Your task to perform on an android device: turn on location history Image 0: 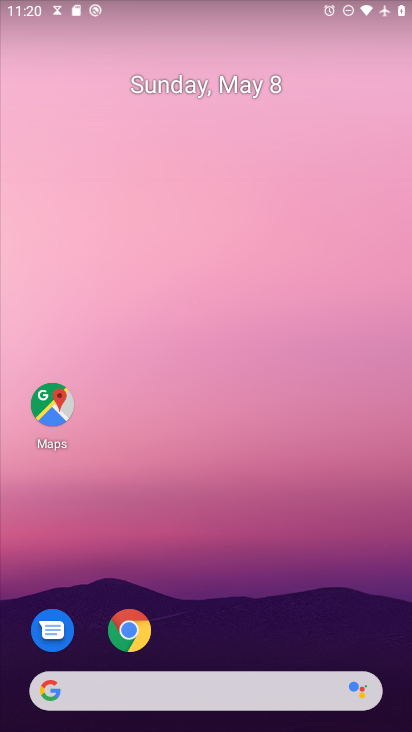
Step 0: drag from (181, 669) to (336, 39)
Your task to perform on an android device: turn on location history Image 1: 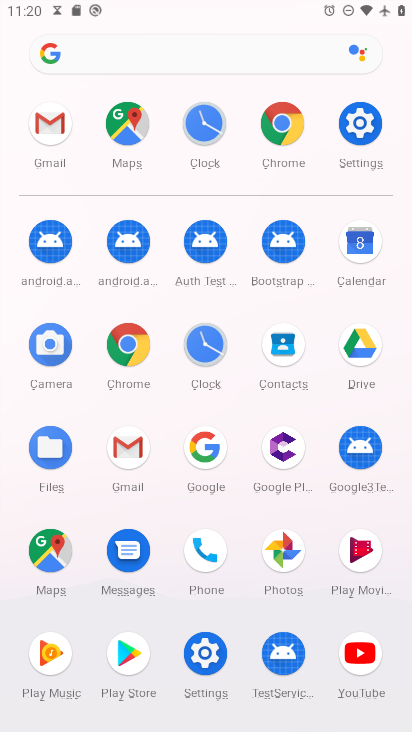
Step 1: click (127, 139)
Your task to perform on an android device: turn on location history Image 2: 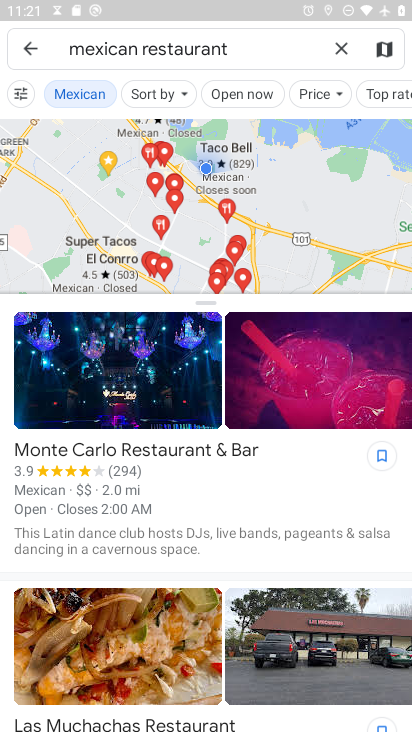
Step 2: click (30, 49)
Your task to perform on an android device: turn on location history Image 3: 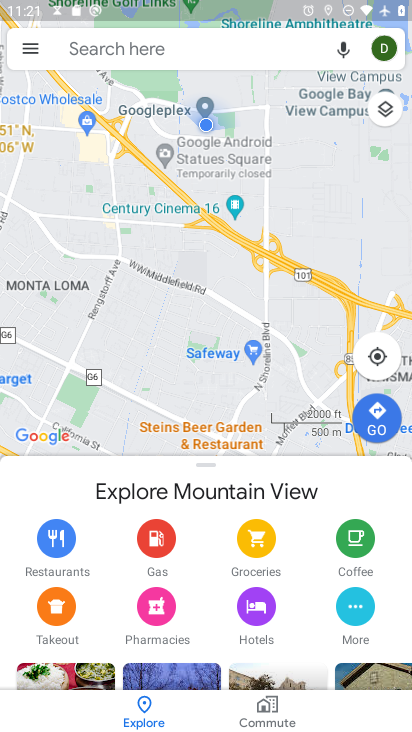
Step 3: click (34, 47)
Your task to perform on an android device: turn on location history Image 4: 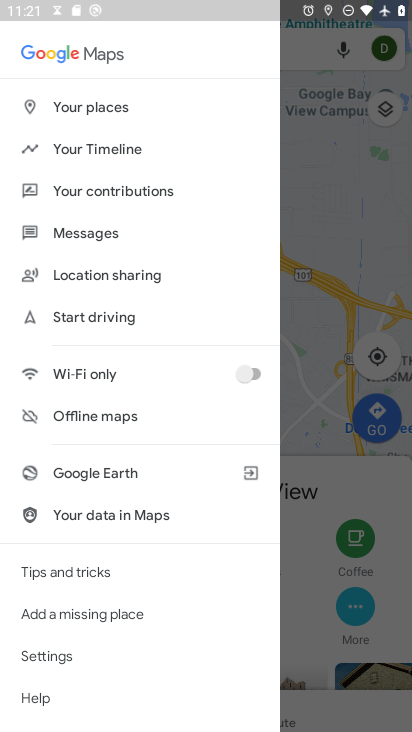
Step 4: click (128, 151)
Your task to perform on an android device: turn on location history Image 5: 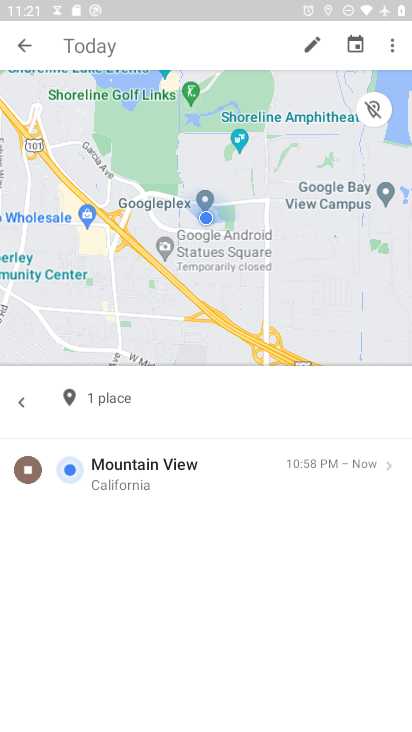
Step 5: click (391, 44)
Your task to perform on an android device: turn on location history Image 6: 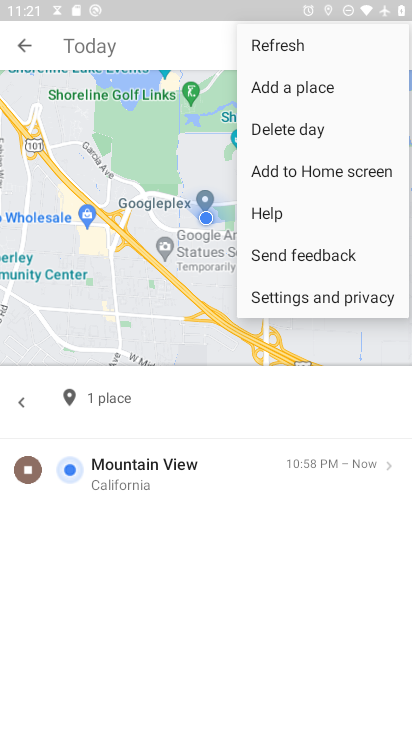
Step 6: click (276, 295)
Your task to perform on an android device: turn on location history Image 7: 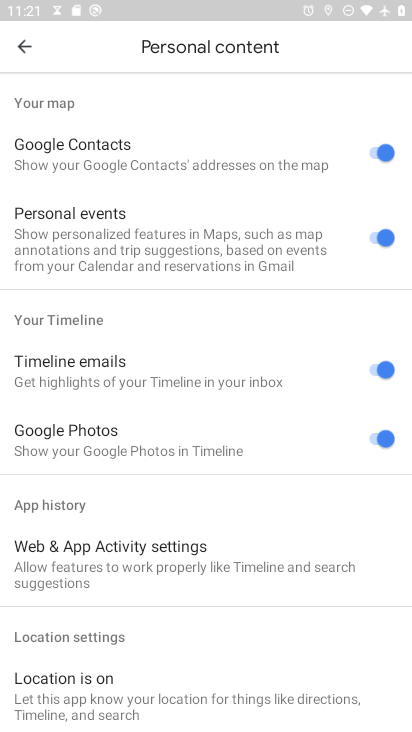
Step 7: drag from (179, 635) to (267, 338)
Your task to perform on an android device: turn on location history Image 8: 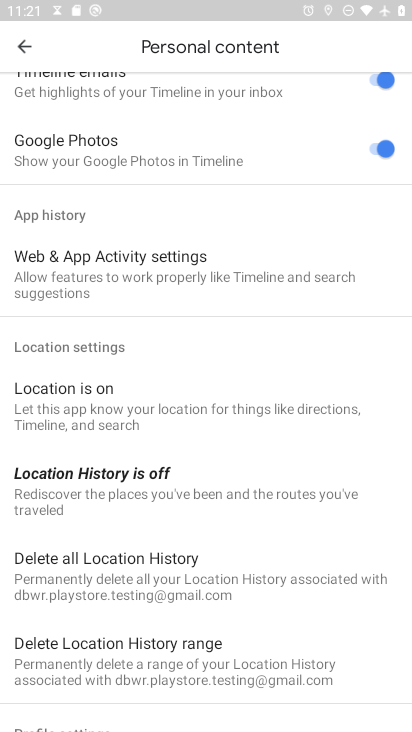
Step 8: click (154, 490)
Your task to perform on an android device: turn on location history Image 9: 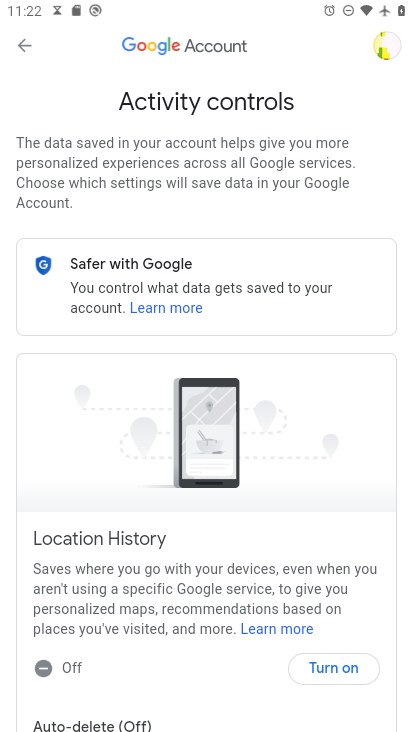
Step 9: click (340, 668)
Your task to perform on an android device: turn on location history Image 10: 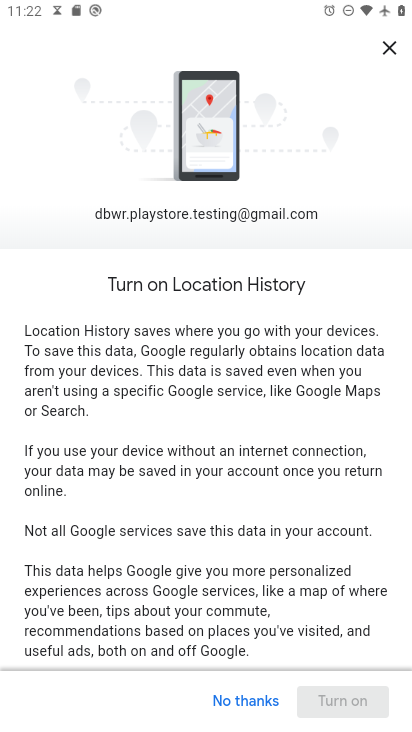
Step 10: drag from (219, 631) to (364, 126)
Your task to perform on an android device: turn on location history Image 11: 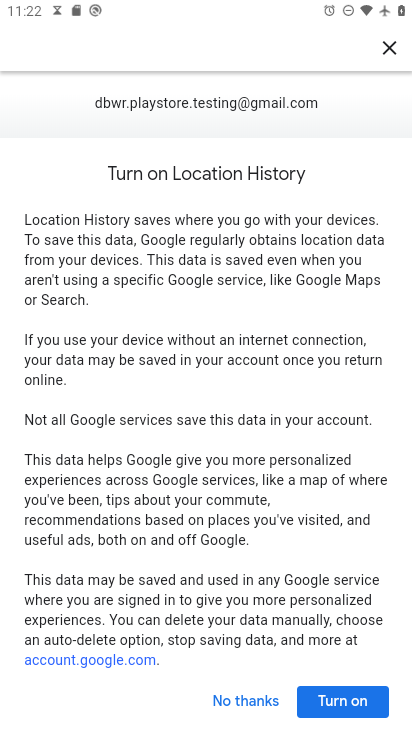
Step 11: click (346, 700)
Your task to perform on an android device: turn on location history Image 12: 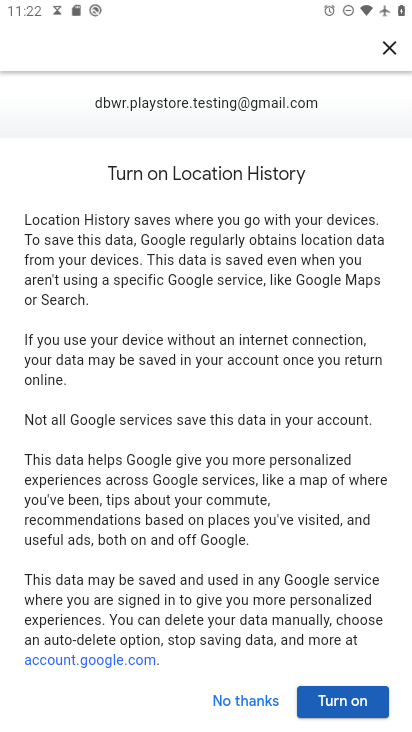
Step 12: click (347, 731)
Your task to perform on an android device: turn on location history Image 13: 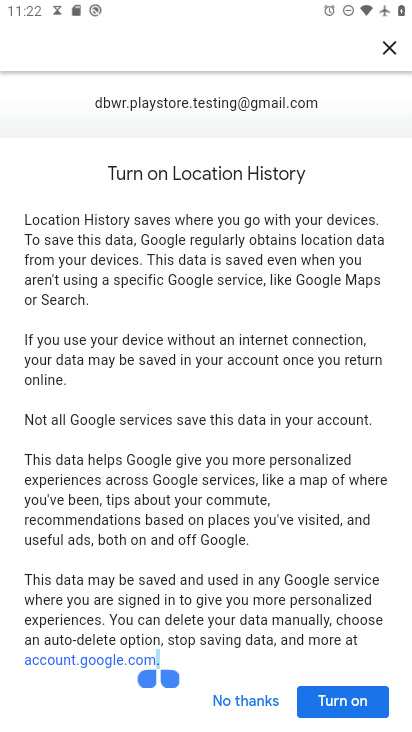
Step 13: click (340, 706)
Your task to perform on an android device: turn on location history Image 14: 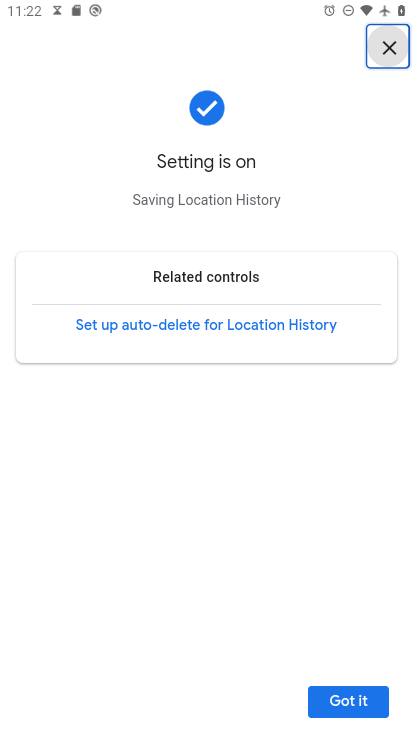
Step 14: click (349, 702)
Your task to perform on an android device: turn on location history Image 15: 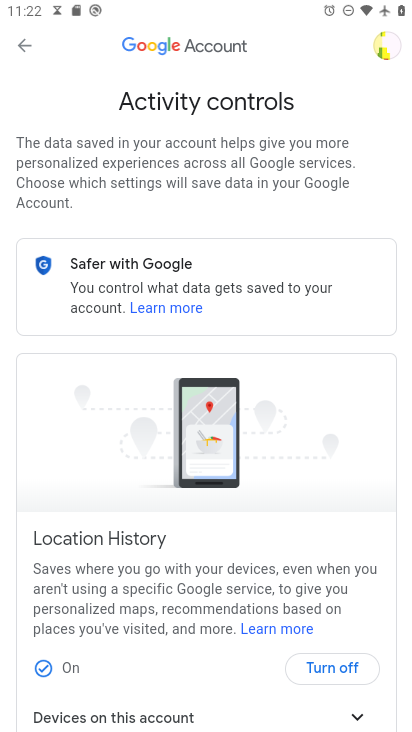
Step 15: task complete